Your task to perform on an android device: Open wifi settings Image 0: 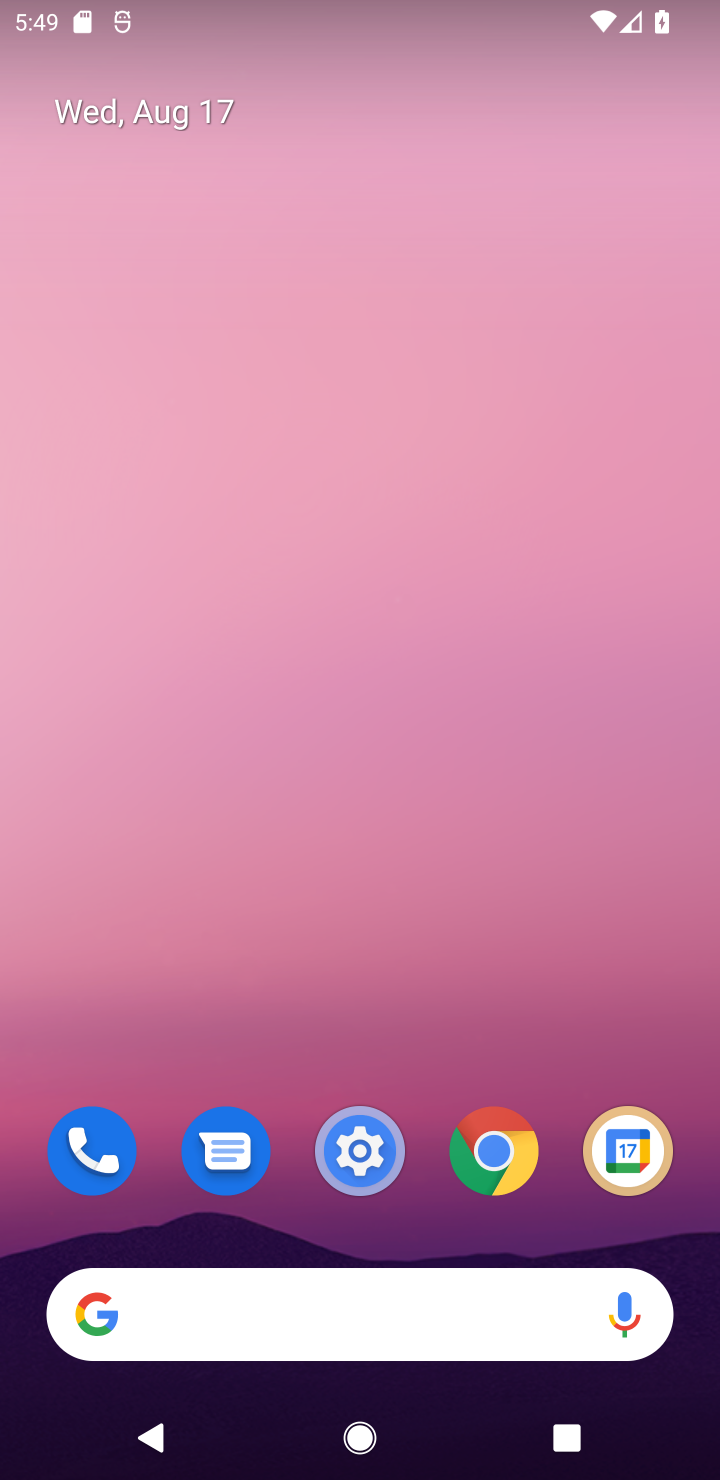
Step 0: click (359, 1172)
Your task to perform on an android device: Open wifi settings Image 1: 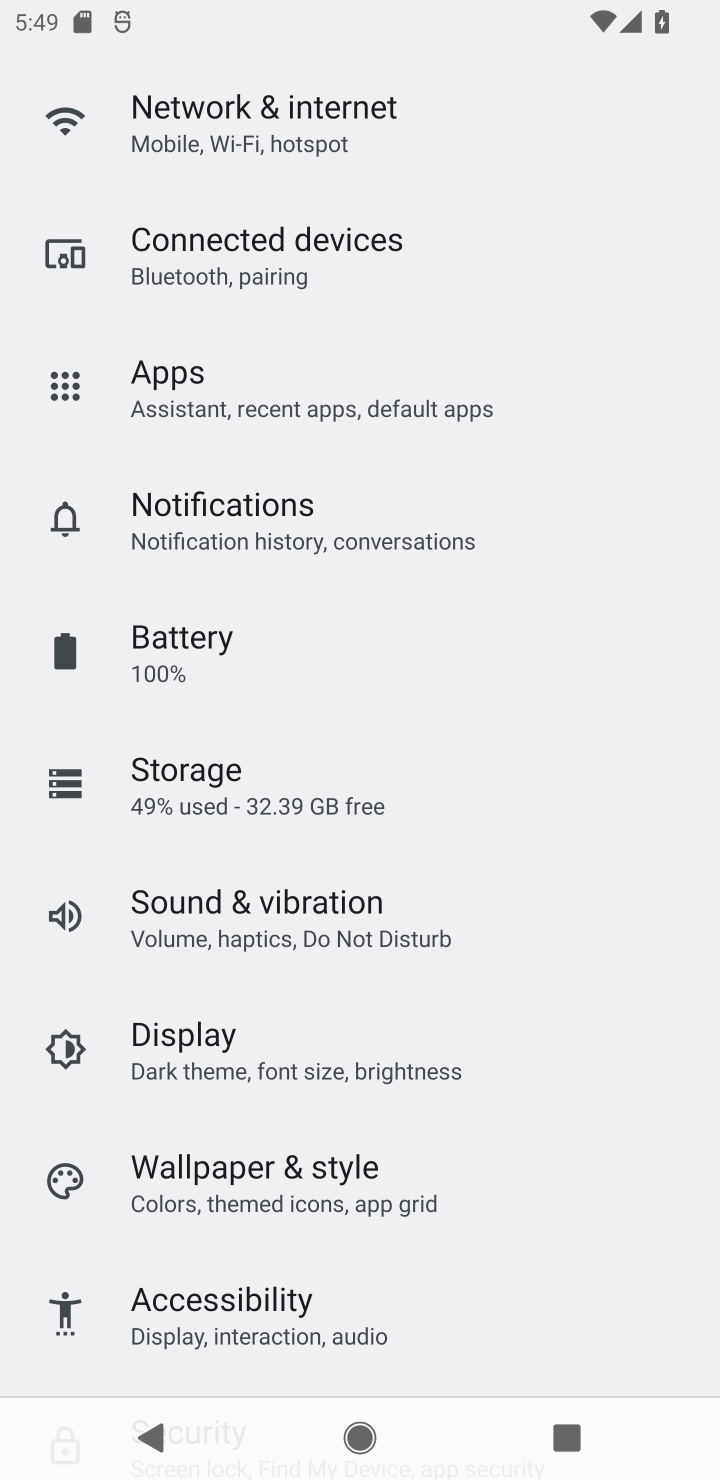
Step 1: click (254, 137)
Your task to perform on an android device: Open wifi settings Image 2: 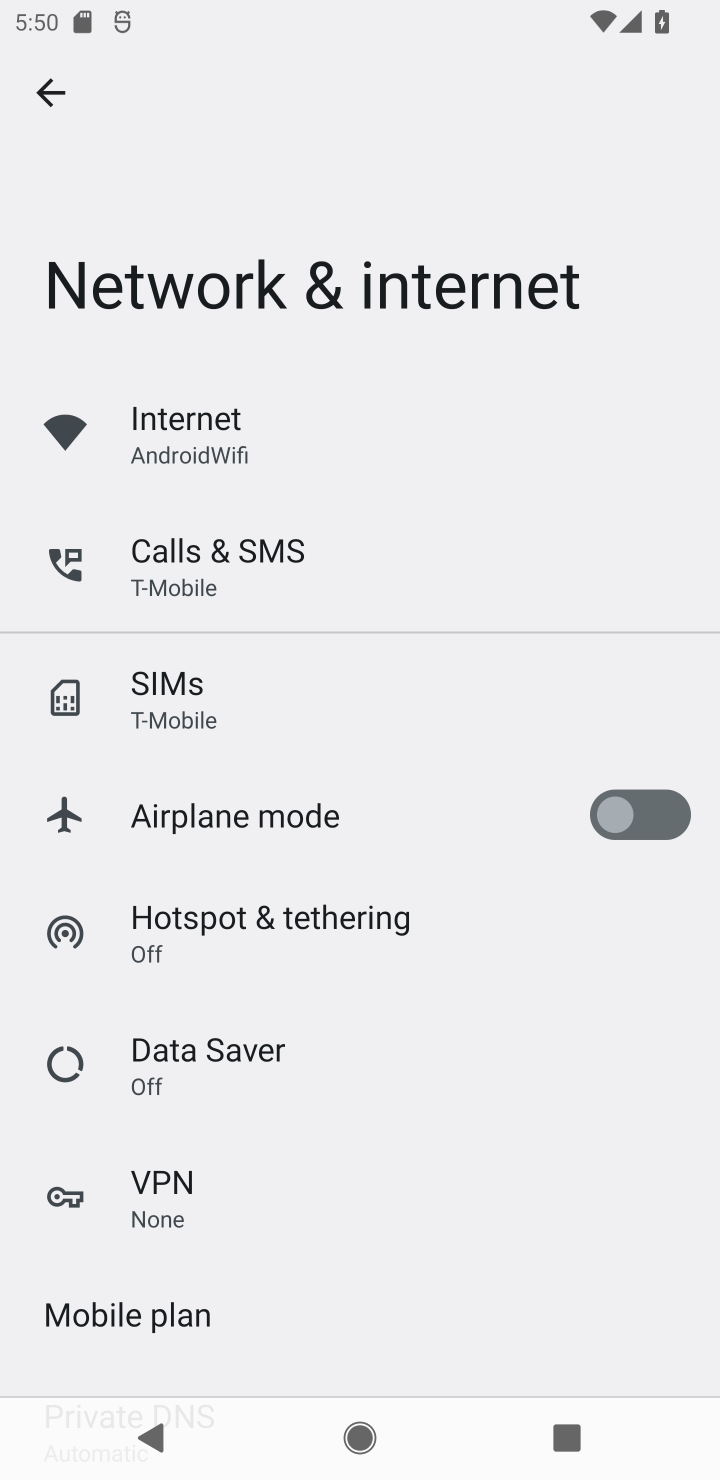
Step 2: task complete